Your task to perform on an android device: open the mobile data screen to see how much data has been used Image 0: 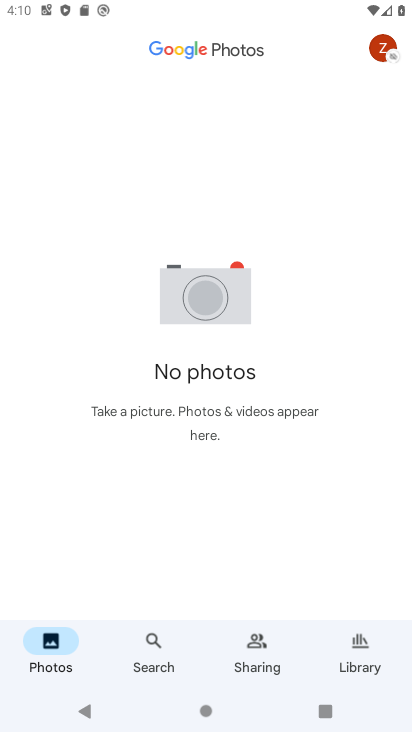
Step 0: press back button
Your task to perform on an android device: open the mobile data screen to see how much data has been used Image 1: 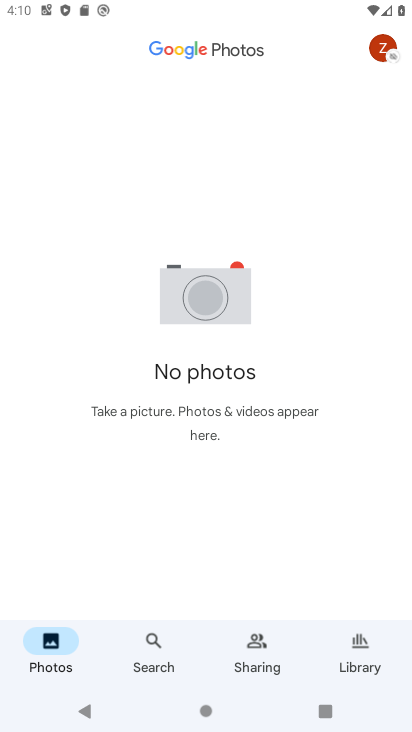
Step 1: press back button
Your task to perform on an android device: open the mobile data screen to see how much data has been used Image 2: 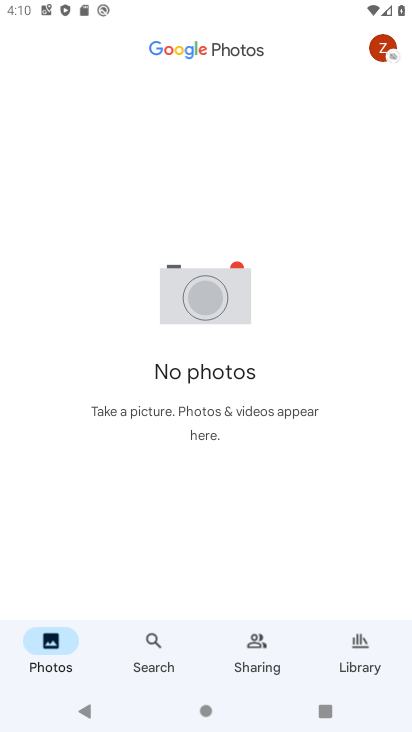
Step 2: press home button
Your task to perform on an android device: open the mobile data screen to see how much data has been used Image 3: 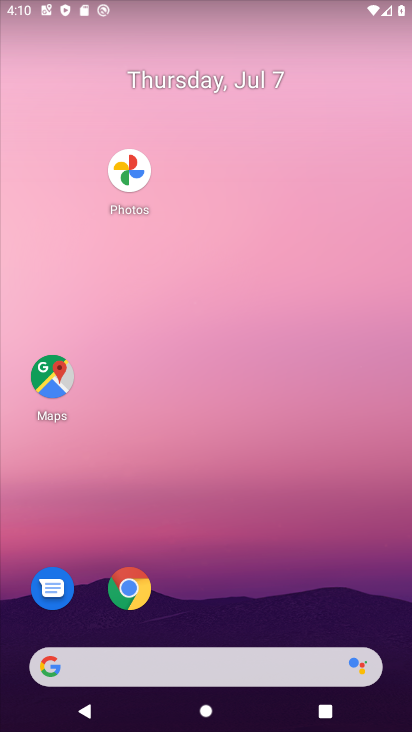
Step 3: drag from (275, 627) to (112, 15)
Your task to perform on an android device: open the mobile data screen to see how much data has been used Image 4: 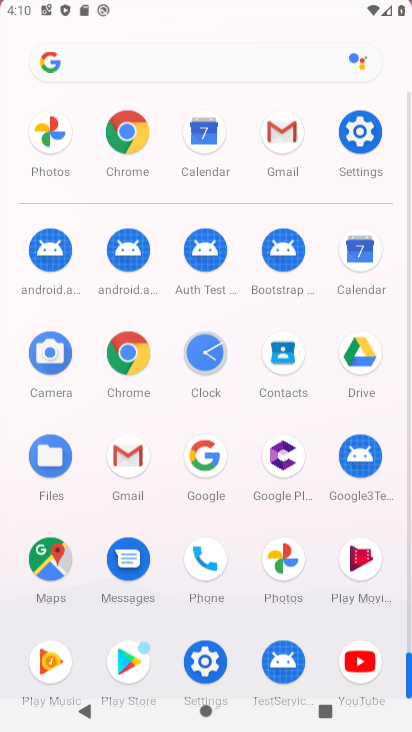
Step 4: drag from (191, 414) to (73, 25)
Your task to perform on an android device: open the mobile data screen to see how much data has been used Image 5: 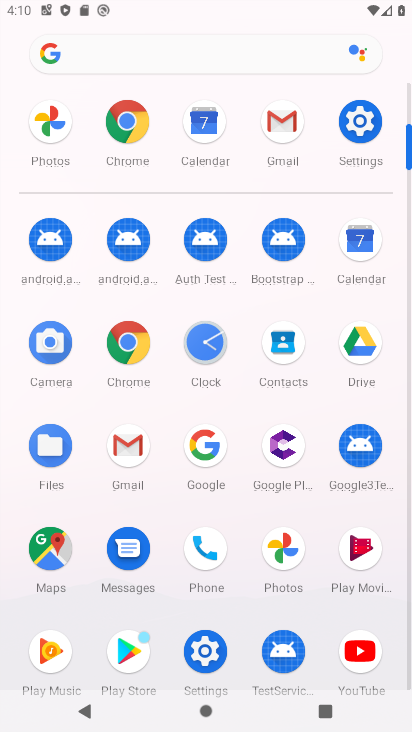
Step 5: click (357, 108)
Your task to perform on an android device: open the mobile data screen to see how much data has been used Image 6: 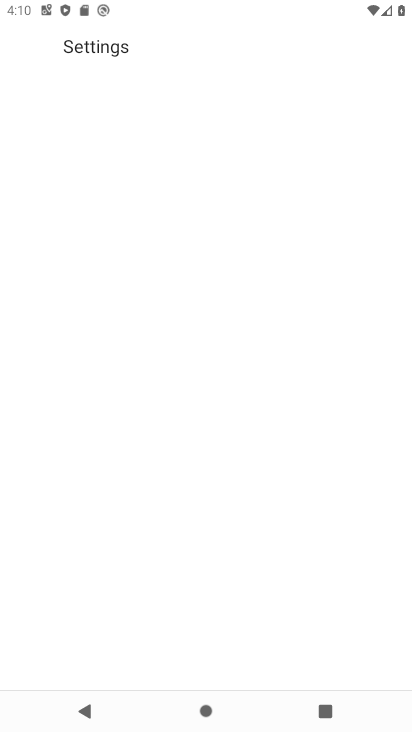
Step 6: click (357, 108)
Your task to perform on an android device: open the mobile data screen to see how much data has been used Image 7: 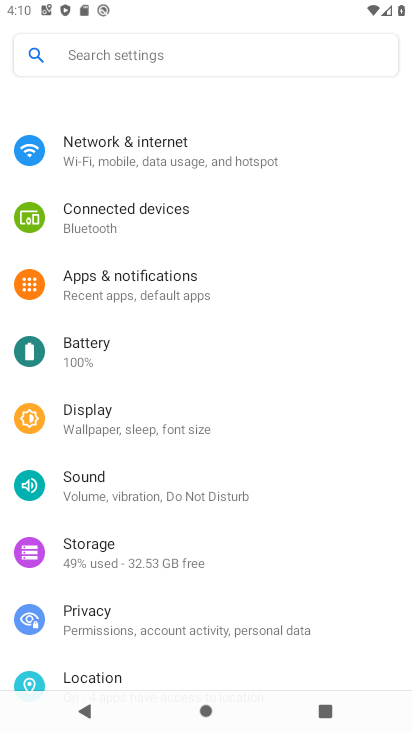
Step 7: click (357, 108)
Your task to perform on an android device: open the mobile data screen to see how much data has been used Image 8: 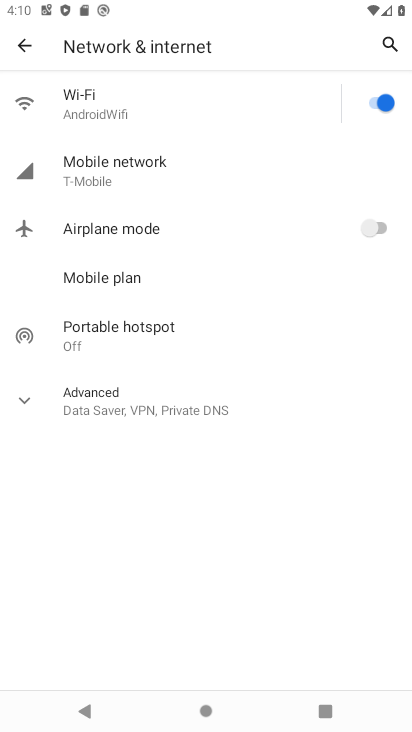
Step 8: click (95, 175)
Your task to perform on an android device: open the mobile data screen to see how much data has been used Image 9: 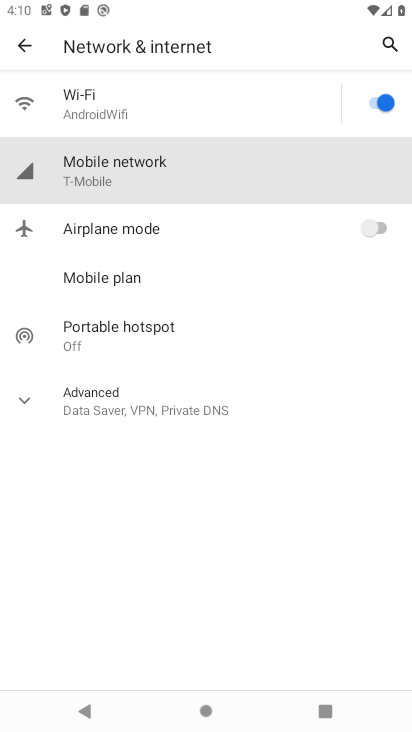
Step 9: click (95, 175)
Your task to perform on an android device: open the mobile data screen to see how much data has been used Image 10: 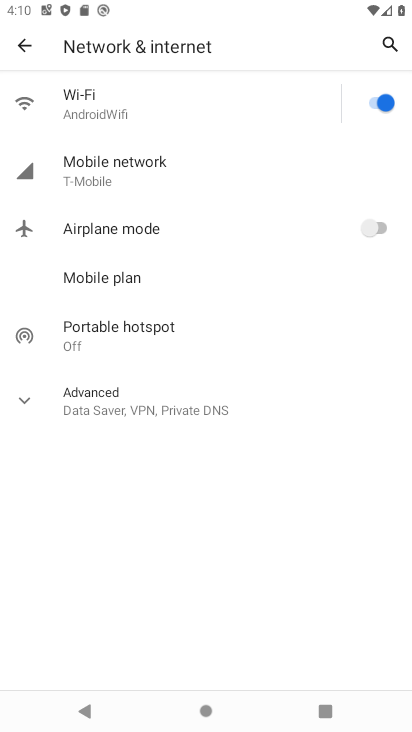
Step 10: click (99, 175)
Your task to perform on an android device: open the mobile data screen to see how much data has been used Image 11: 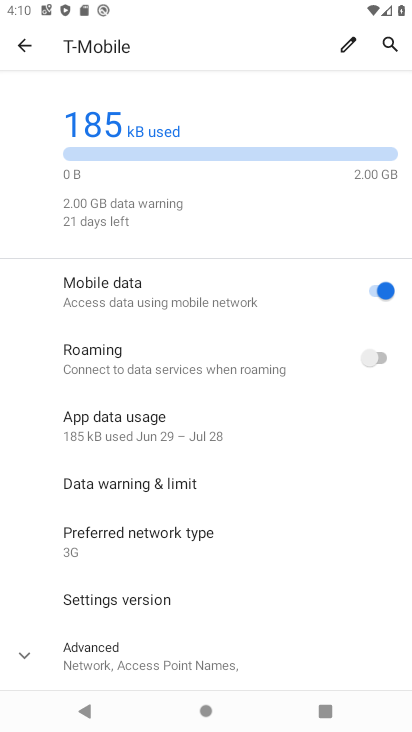
Step 11: task complete